Your task to perform on an android device: Open battery settings Image 0: 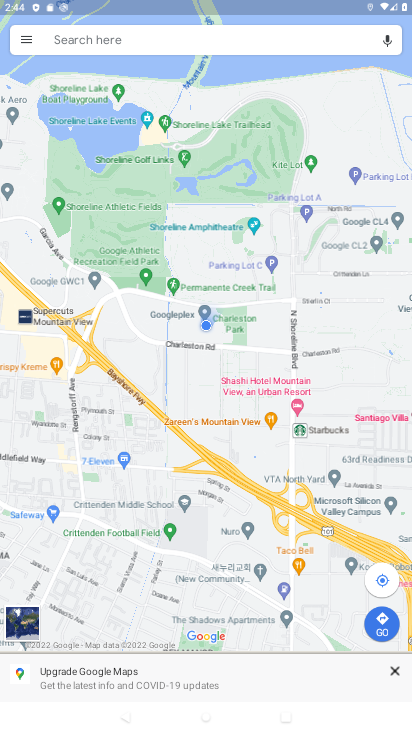
Step 0: press home button
Your task to perform on an android device: Open battery settings Image 1: 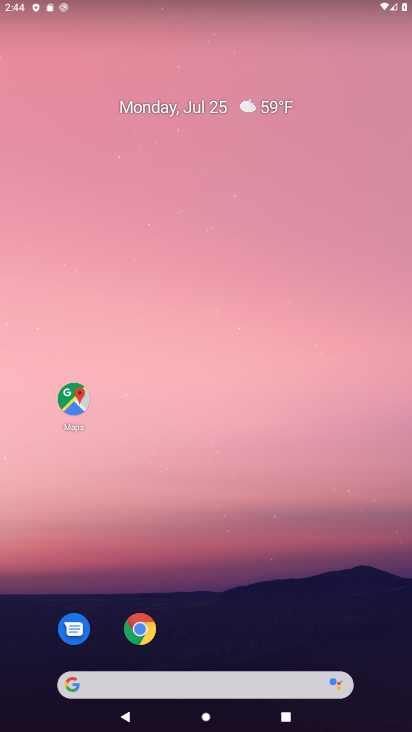
Step 1: drag from (332, 582) to (299, 214)
Your task to perform on an android device: Open battery settings Image 2: 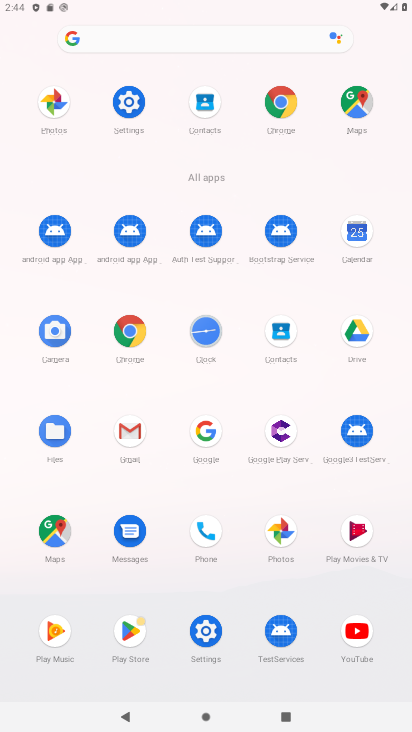
Step 2: click (217, 622)
Your task to perform on an android device: Open battery settings Image 3: 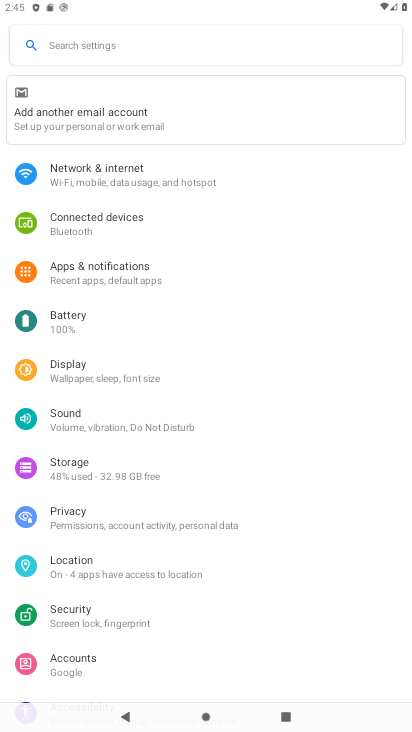
Step 3: click (113, 316)
Your task to perform on an android device: Open battery settings Image 4: 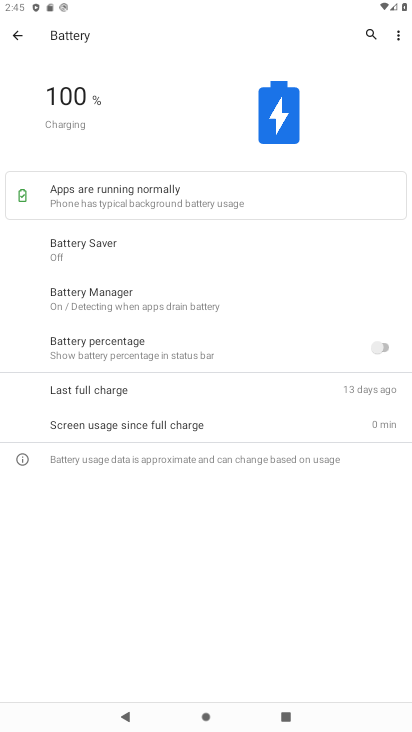
Step 4: task complete